Your task to perform on an android device: Go to Reddit.com Image 0: 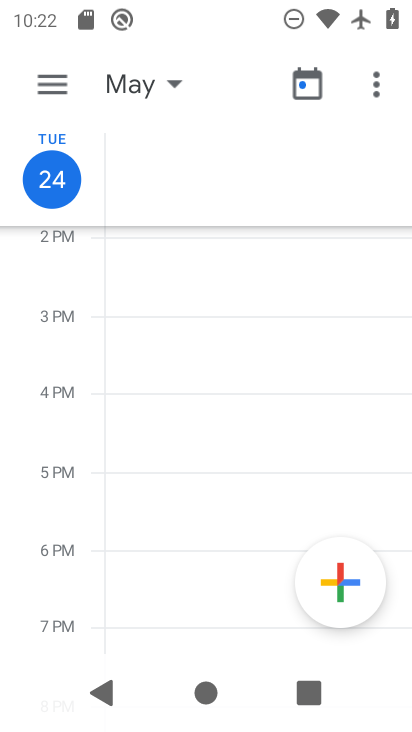
Step 0: press home button
Your task to perform on an android device: Go to Reddit.com Image 1: 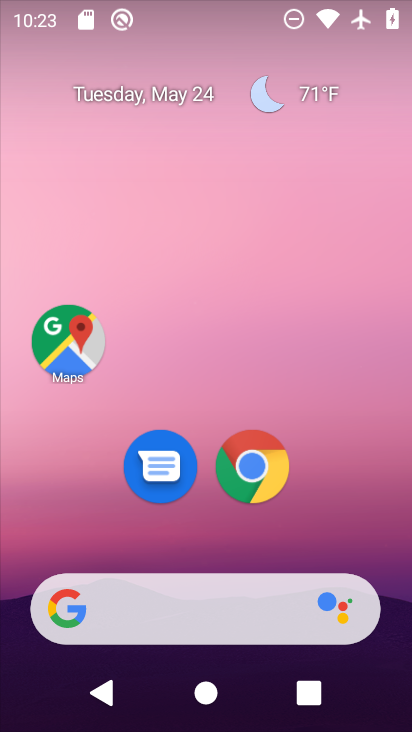
Step 1: click (262, 467)
Your task to perform on an android device: Go to Reddit.com Image 2: 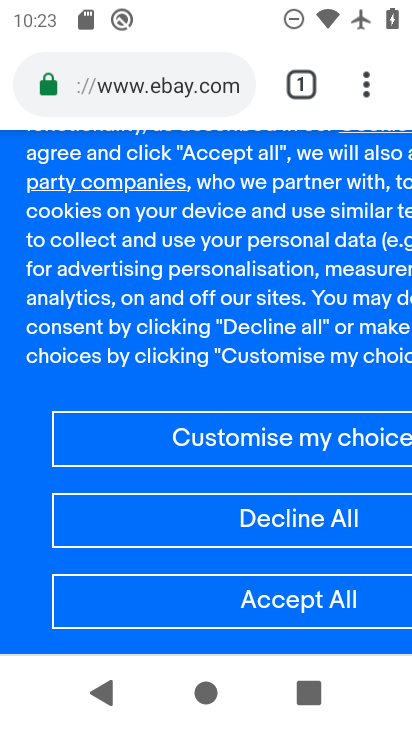
Step 2: click (162, 68)
Your task to perform on an android device: Go to Reddit.com Image 3: 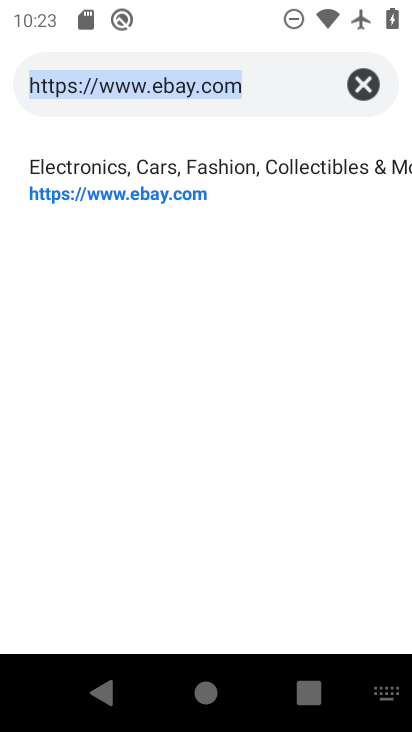
Step 3: type "Reddit.com"
Your task to perform on an android device: Go to Reddit.com Image 4: 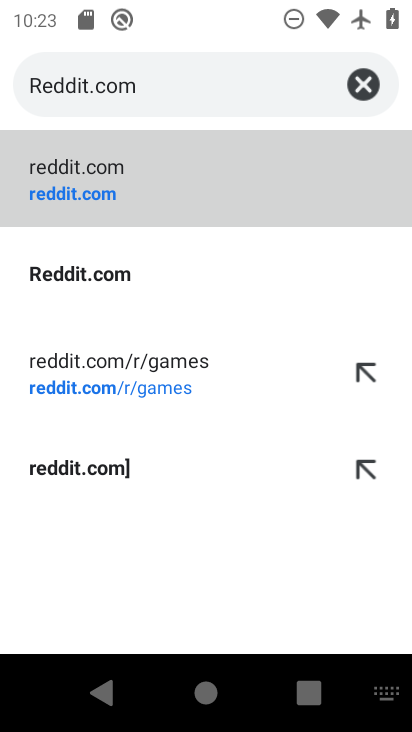
Step 4: click (97, 191)
Your task to perform on an android device: Go to Reddit.com Image 5: 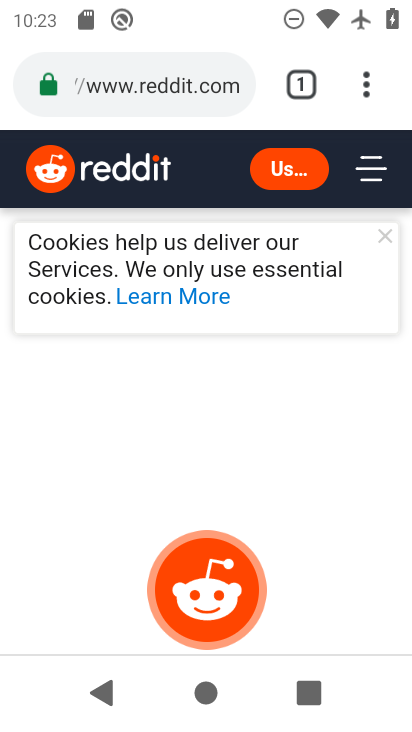
Step 5: task complete